Your task to perform on an android device: turn on airplane mode Image 0: 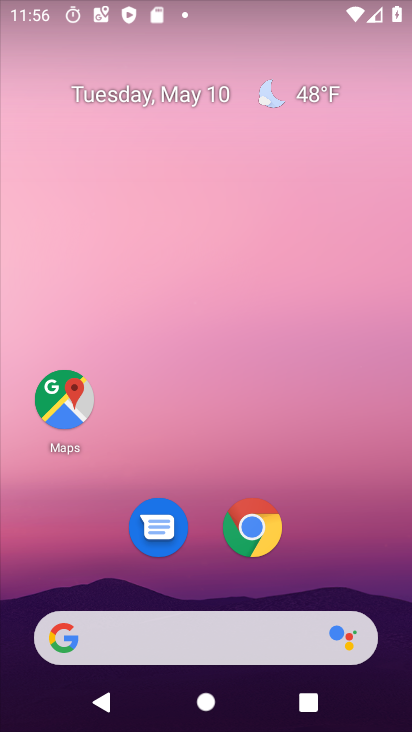
Step 0: drag from (232, 725) to (227, 178)
Your task to perform on an android device: turn on airplane mode Image 1: 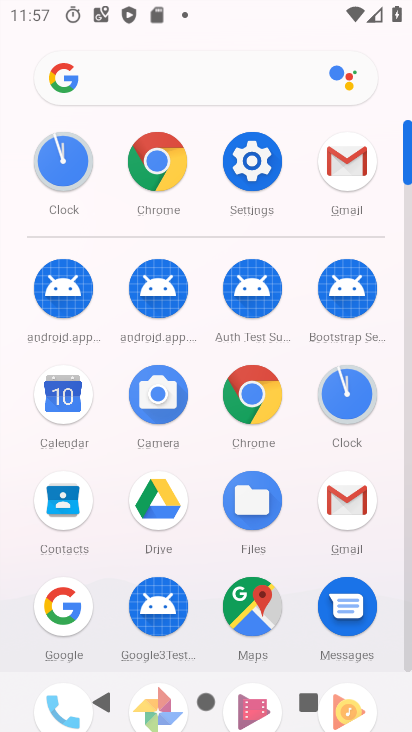
Step 1: click (251, 153)
Your task to perform on an android device: turn on airplane mode Image 2: 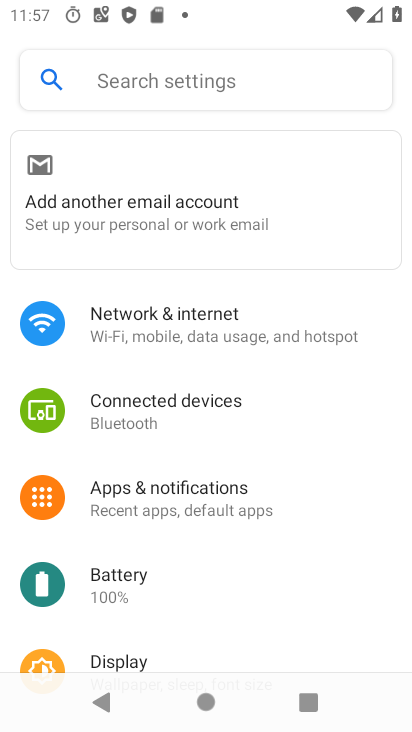
Step 2: click (174, 329)
Your task to perform on an android device: turn on airplane mode Image 3: 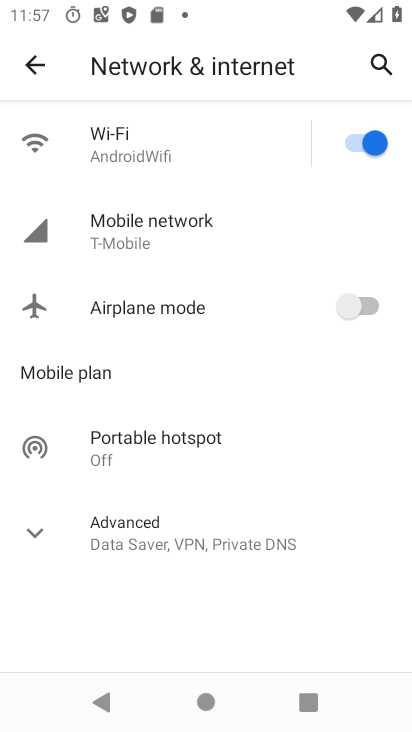
Step 3: click (363, 298)
Your task to perform on an android device: turn on airplane mode Image 4: 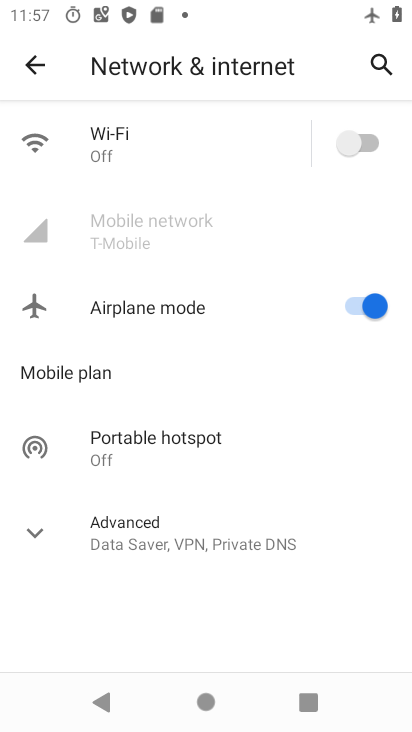
Step 4: task complete